Your task to perform on an android device: Search for seafood restaurants on Google Maps Image 0: 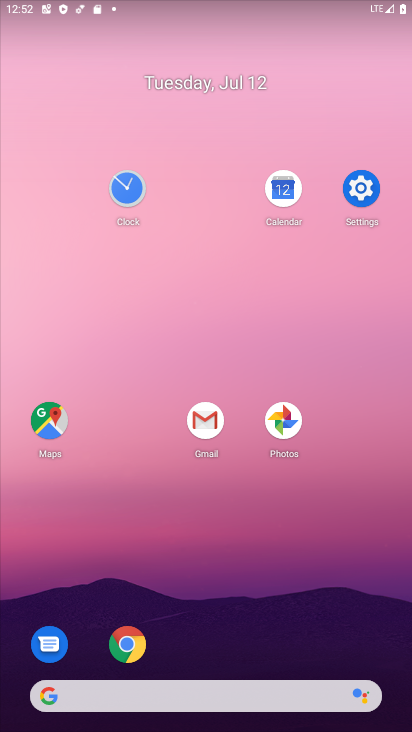
Step 0: click (48, 430)
Your task to perform on an android device: Search for seafood restaurants on Google Maps Image 1: 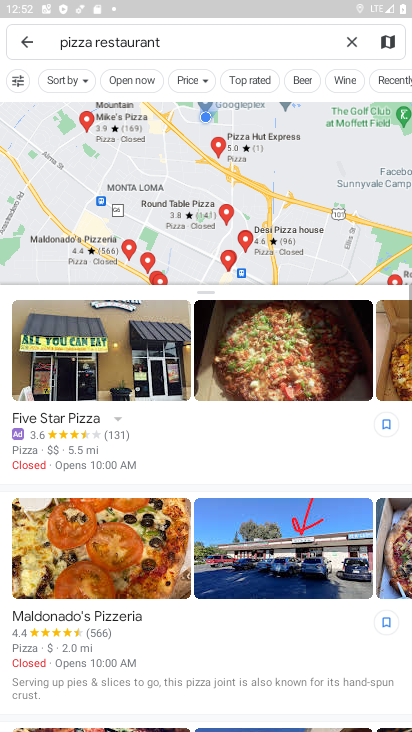
Step 1: click (351, 40)
Your task to perform on an android device: Search for seafood restaurants on Google Maps Image 2: 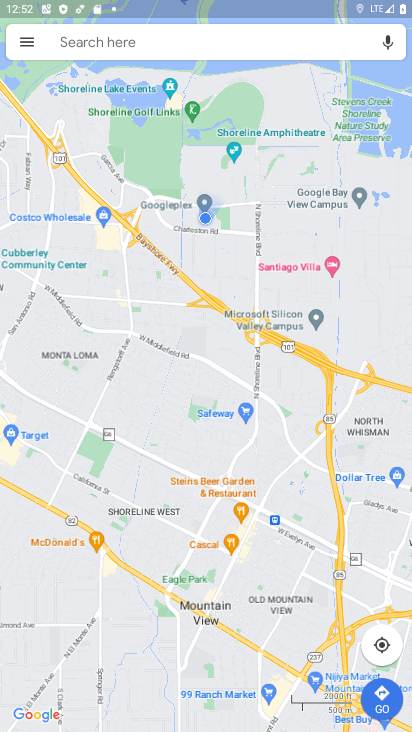
Step 2: click (210, 55)
Your task to perform on an android device: Search for seafood restaurants on Google Maps Image 3: 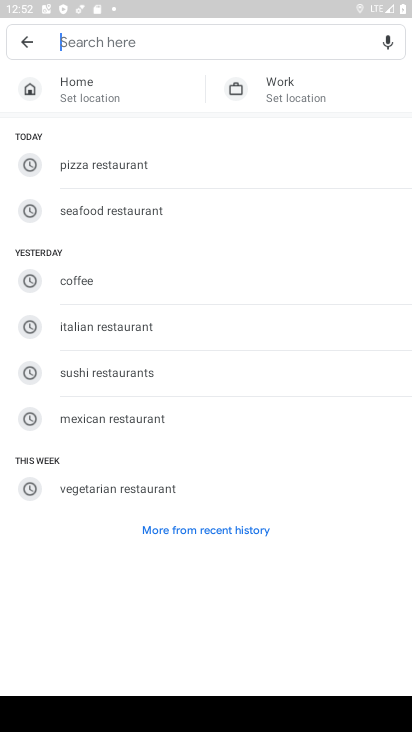
Step 3: click (156, 213)
Your task to perform on an android device: Search for seafood restaurants on Google Maps Image 4: 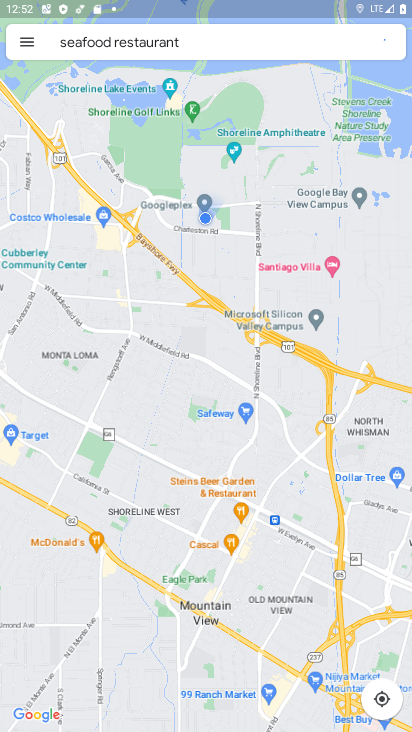
Step 4: task complete